Your task to perform on an android device: turn notification dots on Image 0: 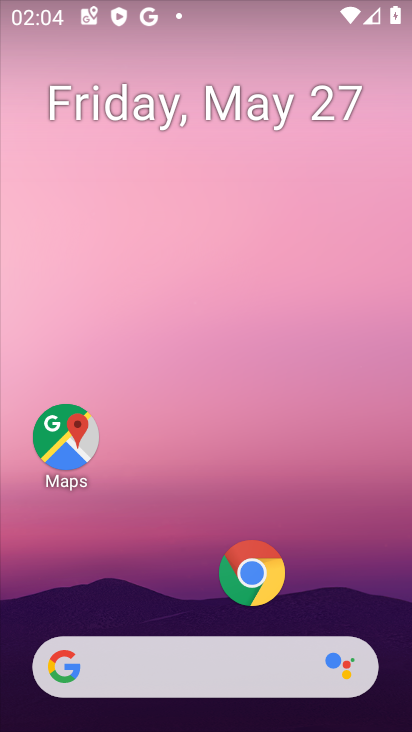
Step 0: drag from (213, 615) to (400, 90)
Your task to perform on an android device: turn notification dots on Image 1: 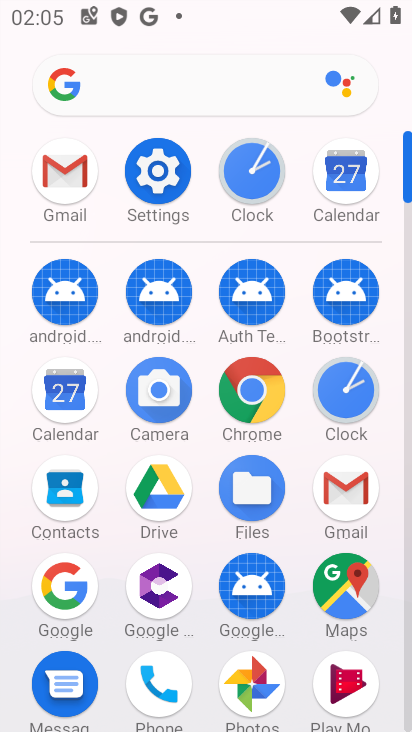
Step 1: click (141, 178)
Your task to perform on an android device: turn notification dots on Image 2: 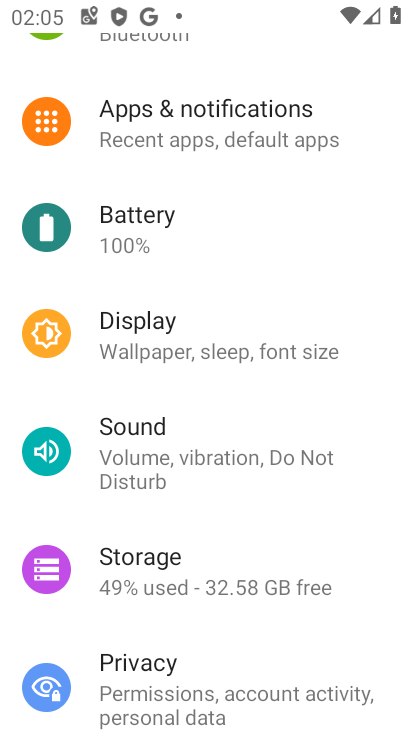
Step 2: drag from (235, 561) to (249, 262)
Your task to perform on an android device: turn notification dots on Image 3: 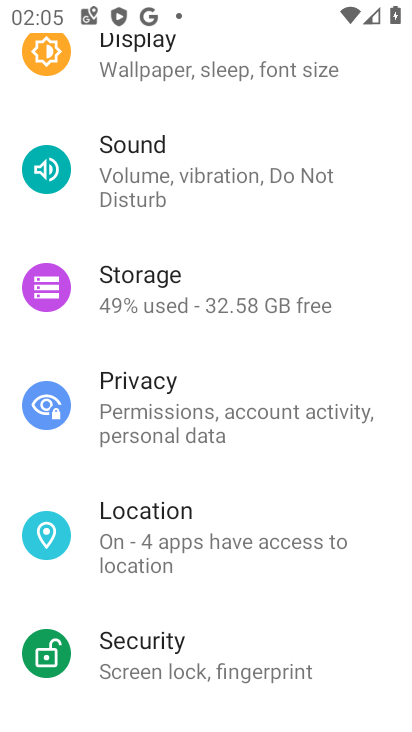
Step 3: drag from (245, 262) to (241, 484)
Your task to perform on an android device: turn notification dots on Image 4: 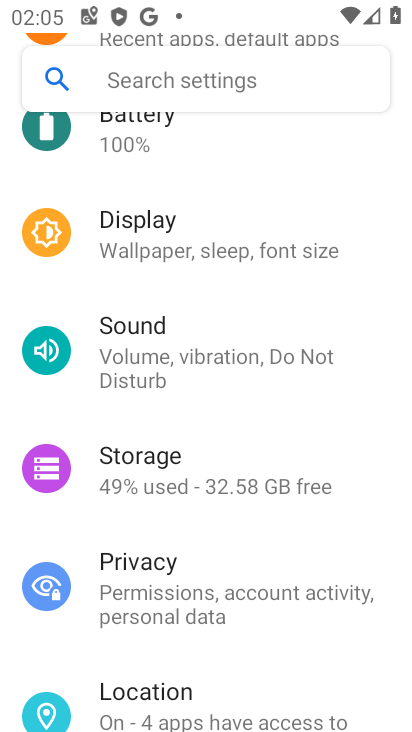
Step 4: drag from (214, 159) to (217, 444)
Your task to perform on an android device: turn notification dots on Image 5: 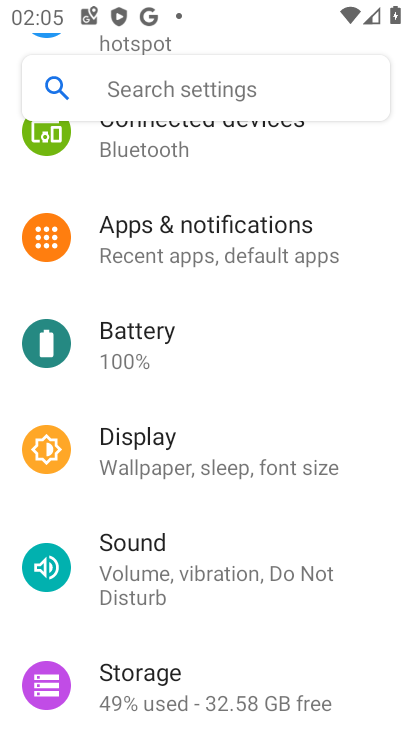
Step 5: click (214, 276)
Your task to perform on an android device: turn notification dots on Image 6: 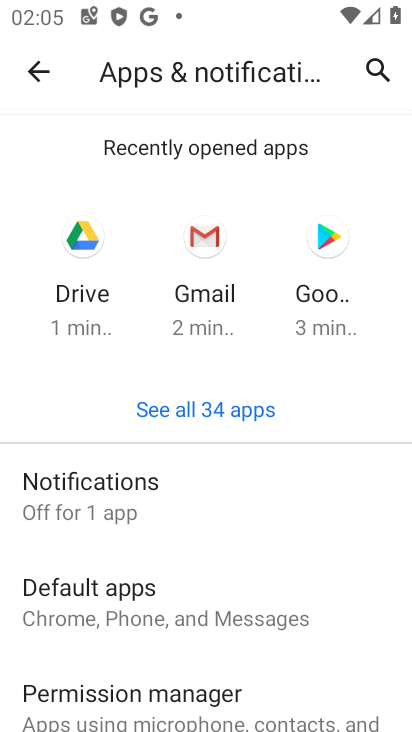
Step 6: click (130, 476)
Your task to perform on an android device: turn notification dots on Image 7: 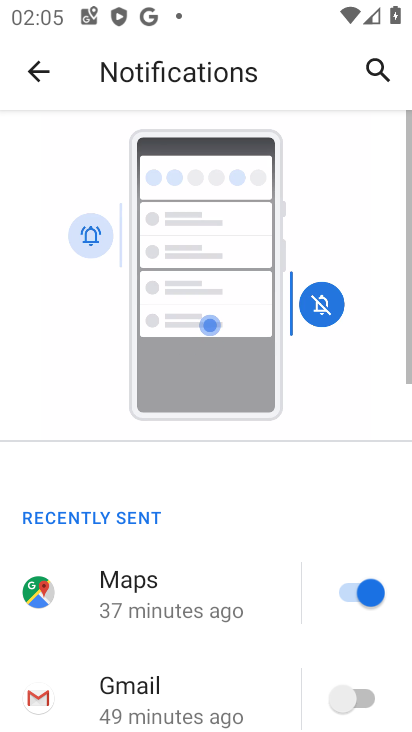
Step 7: drag from (338, 618) to (311, 173)
Your task to perform on an android device: turn notification dots on Image 8: 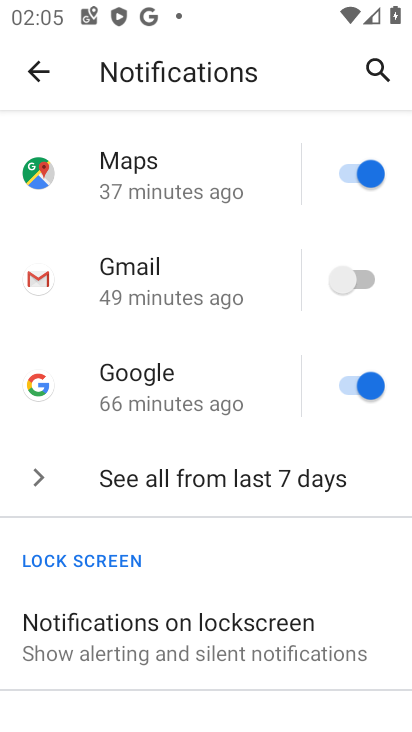
Step 8: drag from (246, 616) to (249, 151)
Your task to perform on an android device: turn notification dots on Image 9: 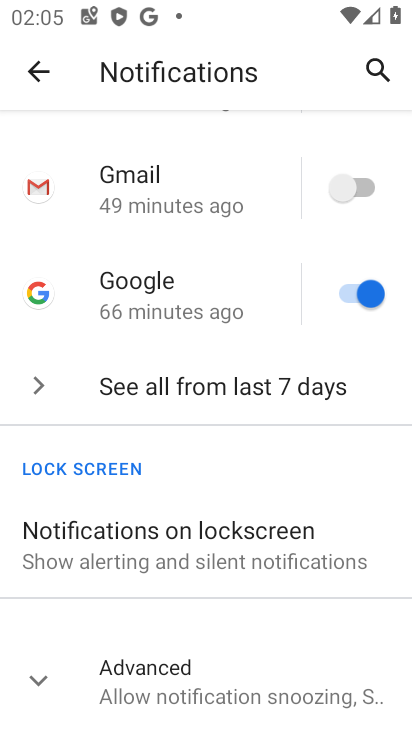
Step 9: click (281, 657)
Your task to perform on an android device: turn notification dots on Image 10: 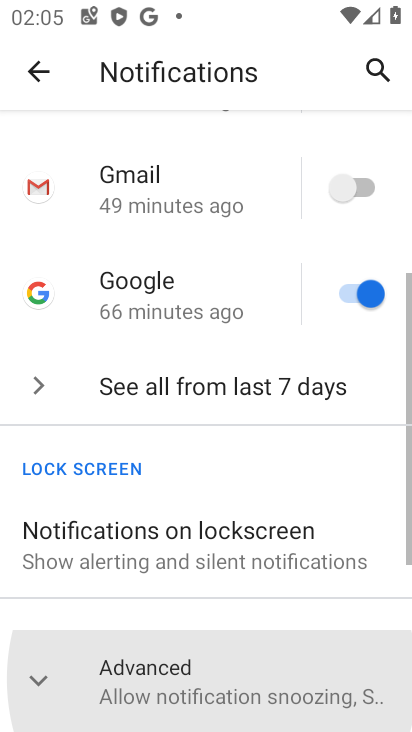
Step 10: drag from (281, 657) to (201, 181)
Your task to perform on an android device: turn notification dots on Image 11: 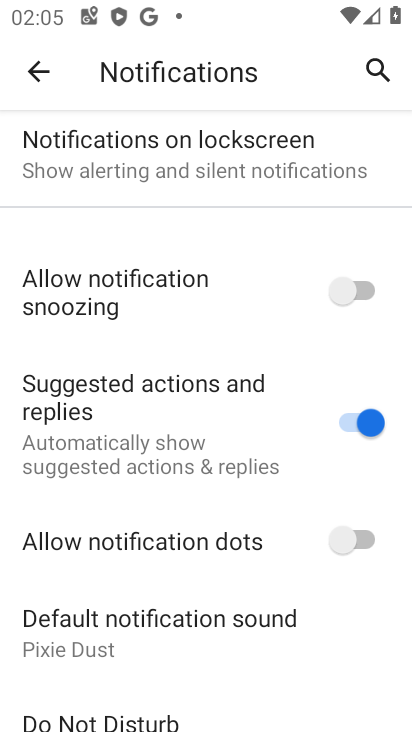
Step 11: click (352, 541)
Your task to perform on an android device: turn notification dots on Image 12: 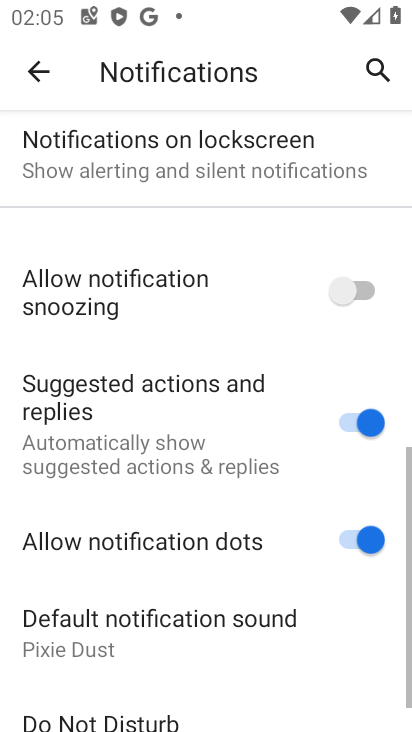
Step 12: task complete